Your task to perform on an android device: Search for dell alienware on walmart, select the first entry, add it to the cart, then select checkout. Image 0: 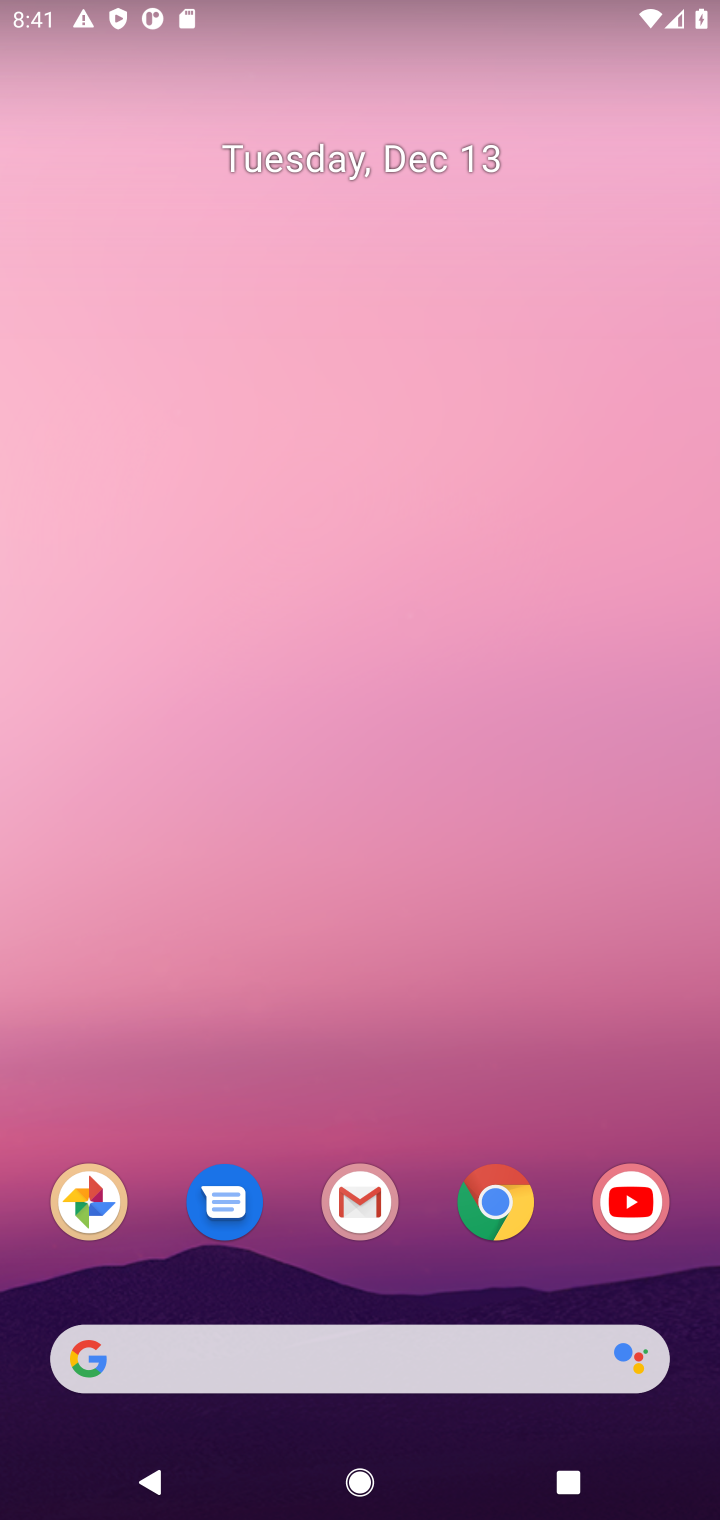
Step 0: click (502, 1203)
Your task to perform on an android device: Search for dell alienware on walmart, select the first entry, add it to the cart, then select checkout. Image 1: 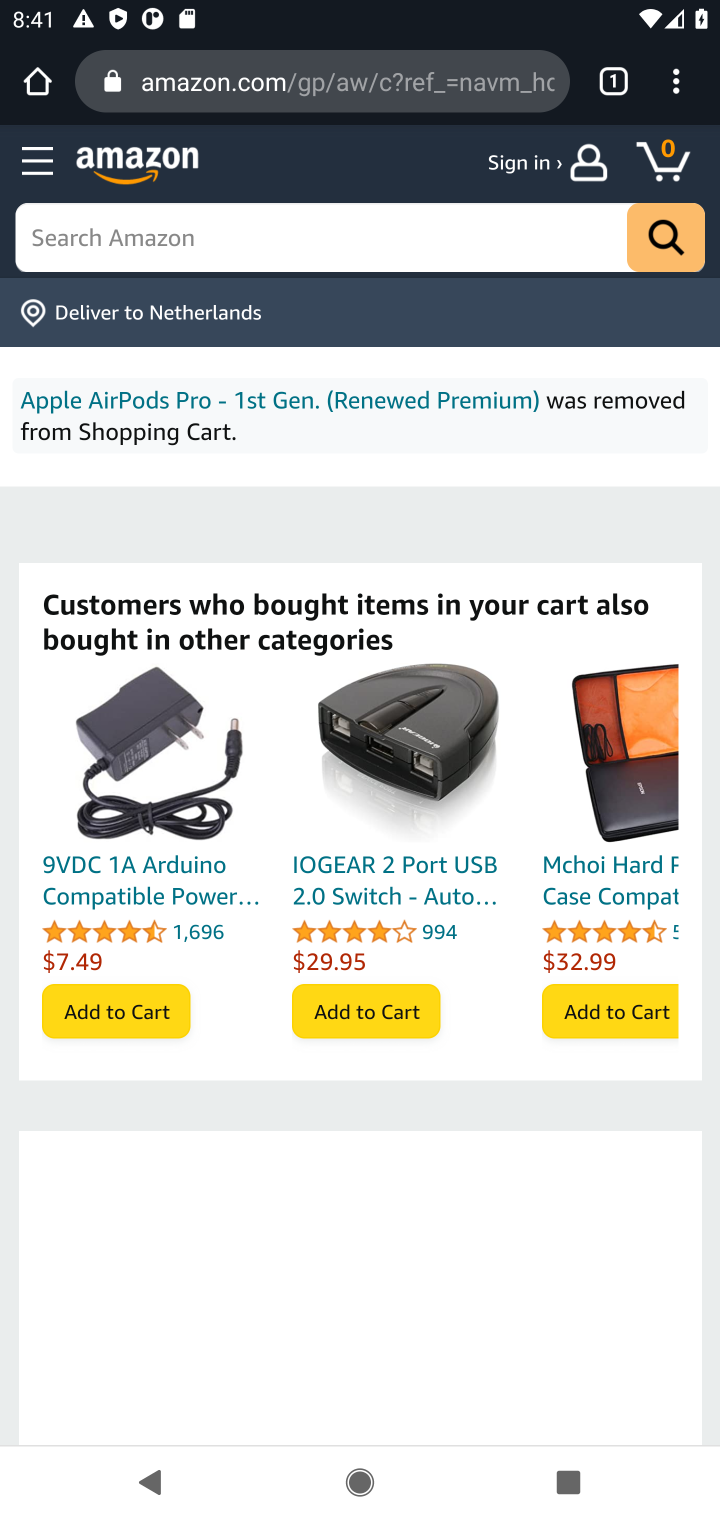
Step 1: click (246, 77)
Your task to perform on an android device: Search for dell alienware on walmart, select the first entry, add it to the cart, then select checkout. Image 2: 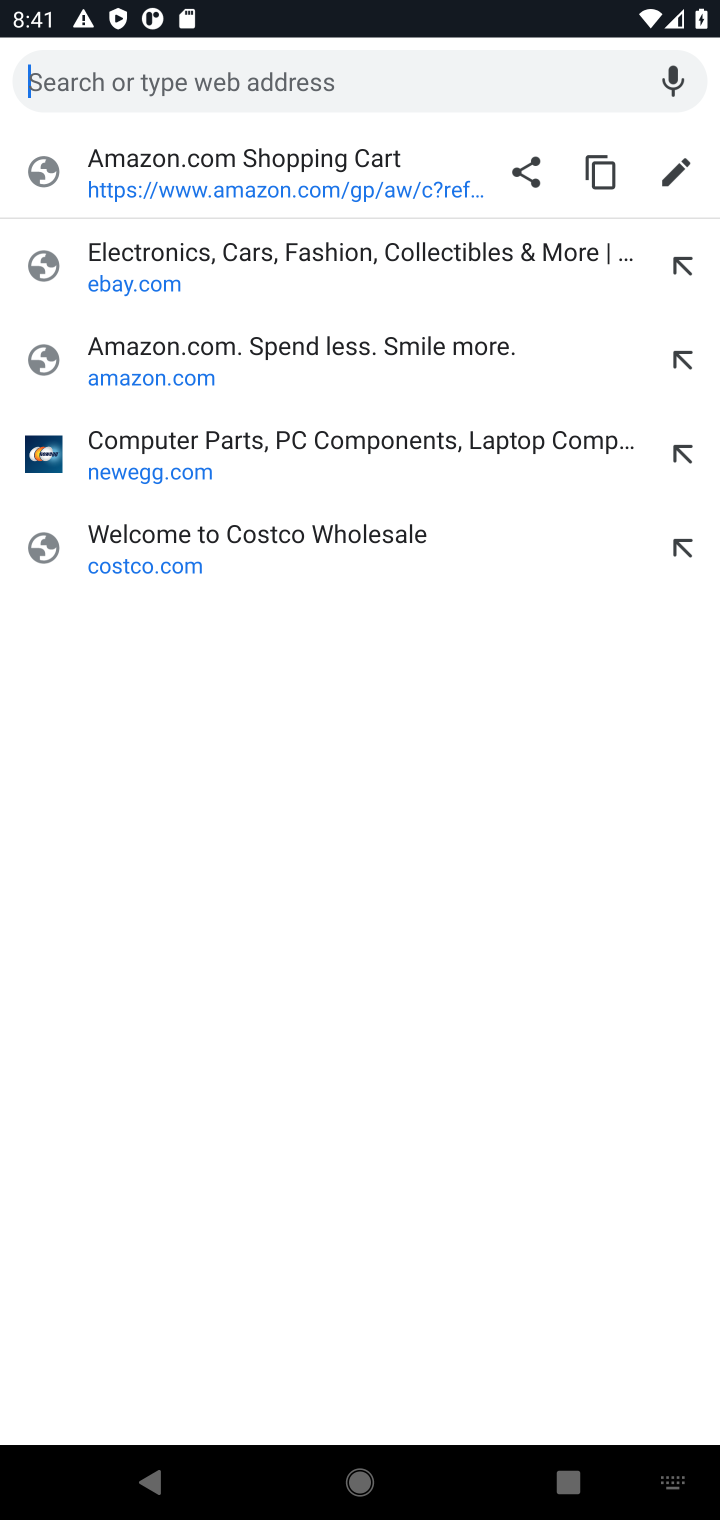
Step 2: type "walmart.com"
Your task to perform on an android device: Search for dell alienware on walmart, select the first entry, add it to the cart, then select checkout. Image 3: 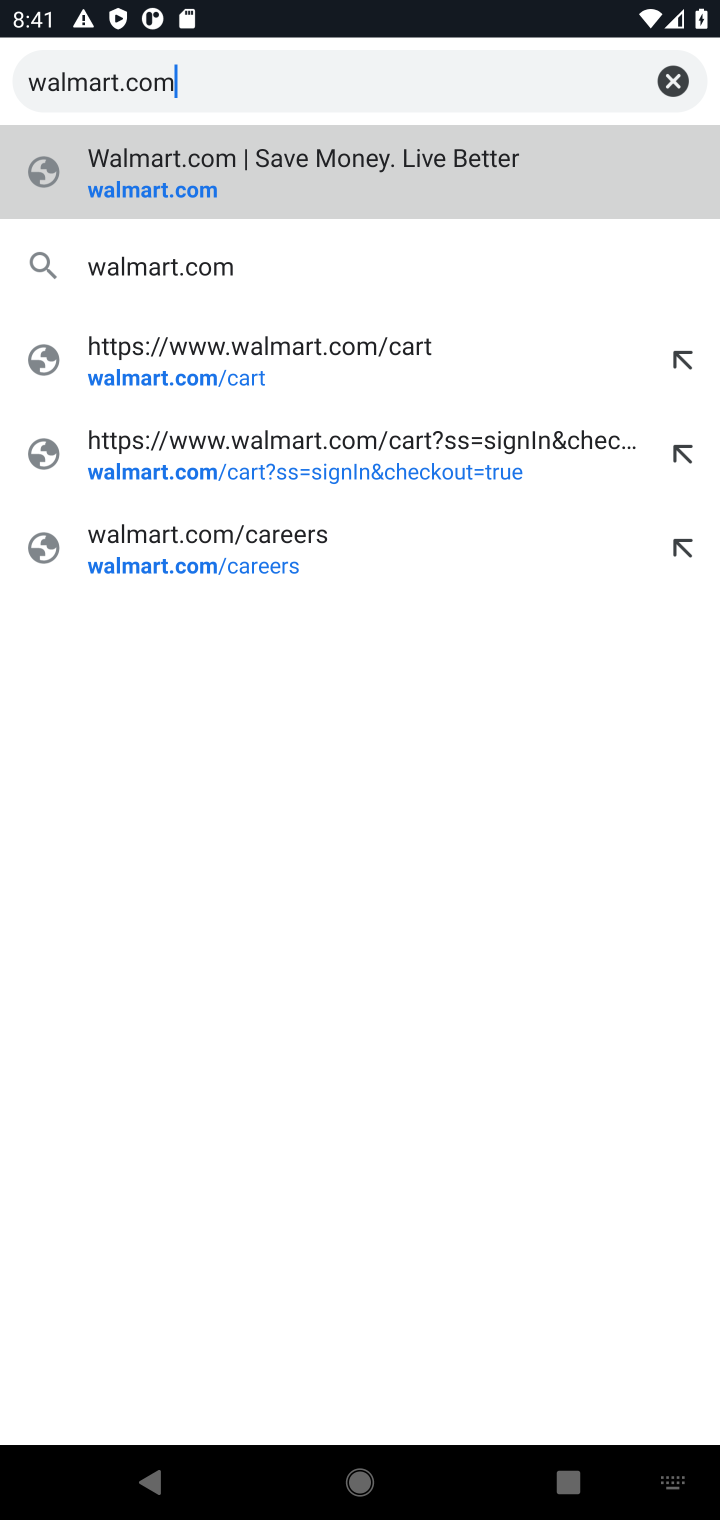
Step 3: click (186, 202)
Your task to perform on an android device: Search for dell alienware on walmart, select the first entry, add it to the cart, then select checkout. Image 4: 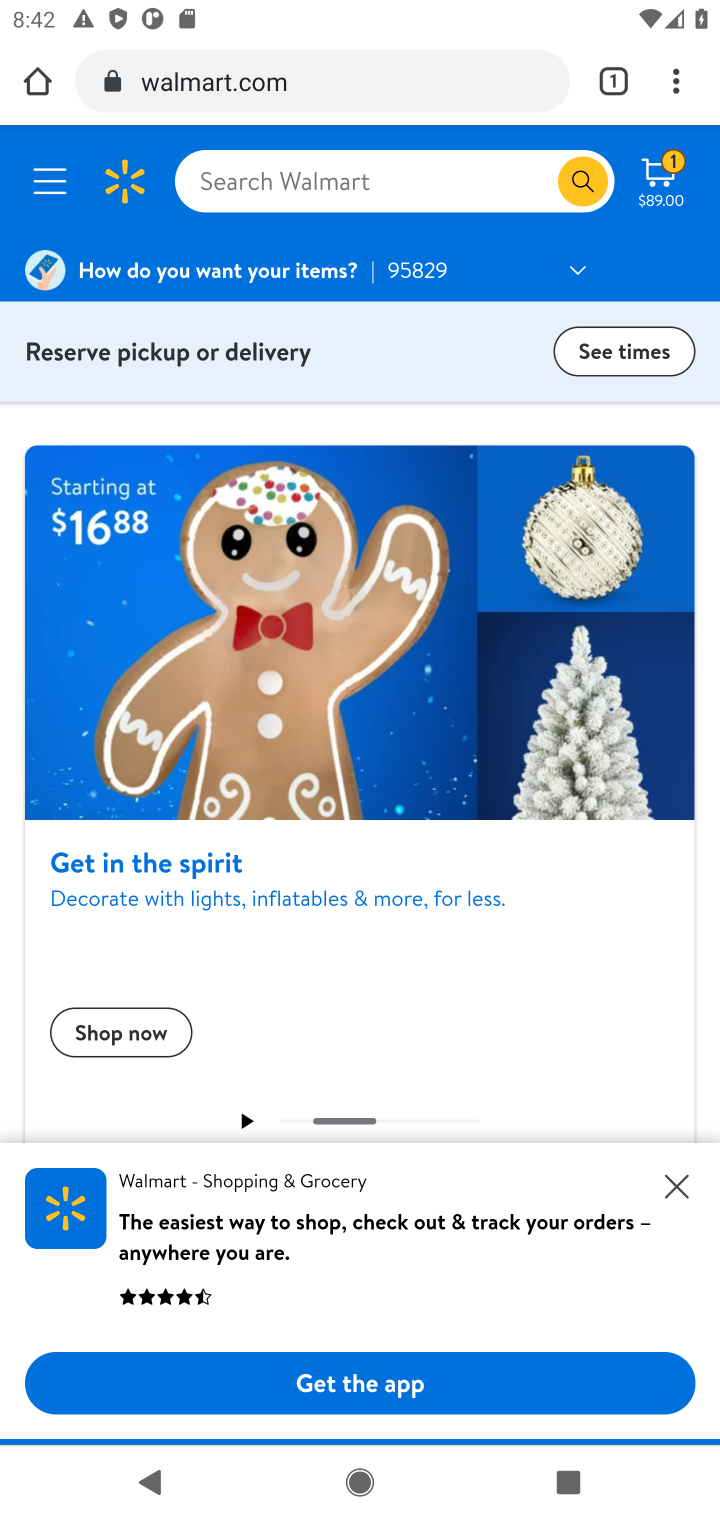
Step 4: click (245, 185)
Your task to perform on an android device: Search for dell alienware on walmart, select the first entry, add it to the cart, then select checkout. Image 5: 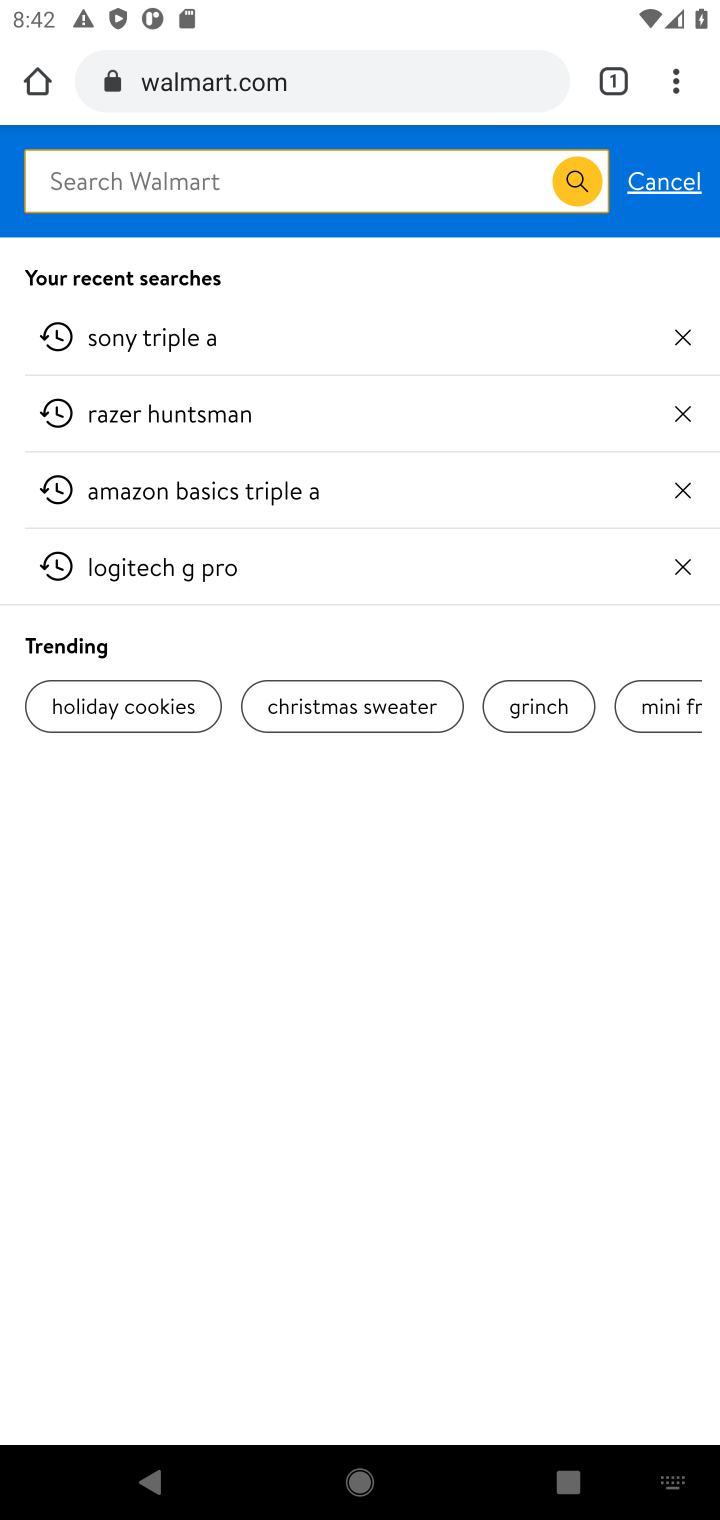
Step 5: type "dell alienware"
Your task to perform on an android device: Search for dell alienware on walmart, select the first entry, add it to the cart, then select checkout. Image 6: 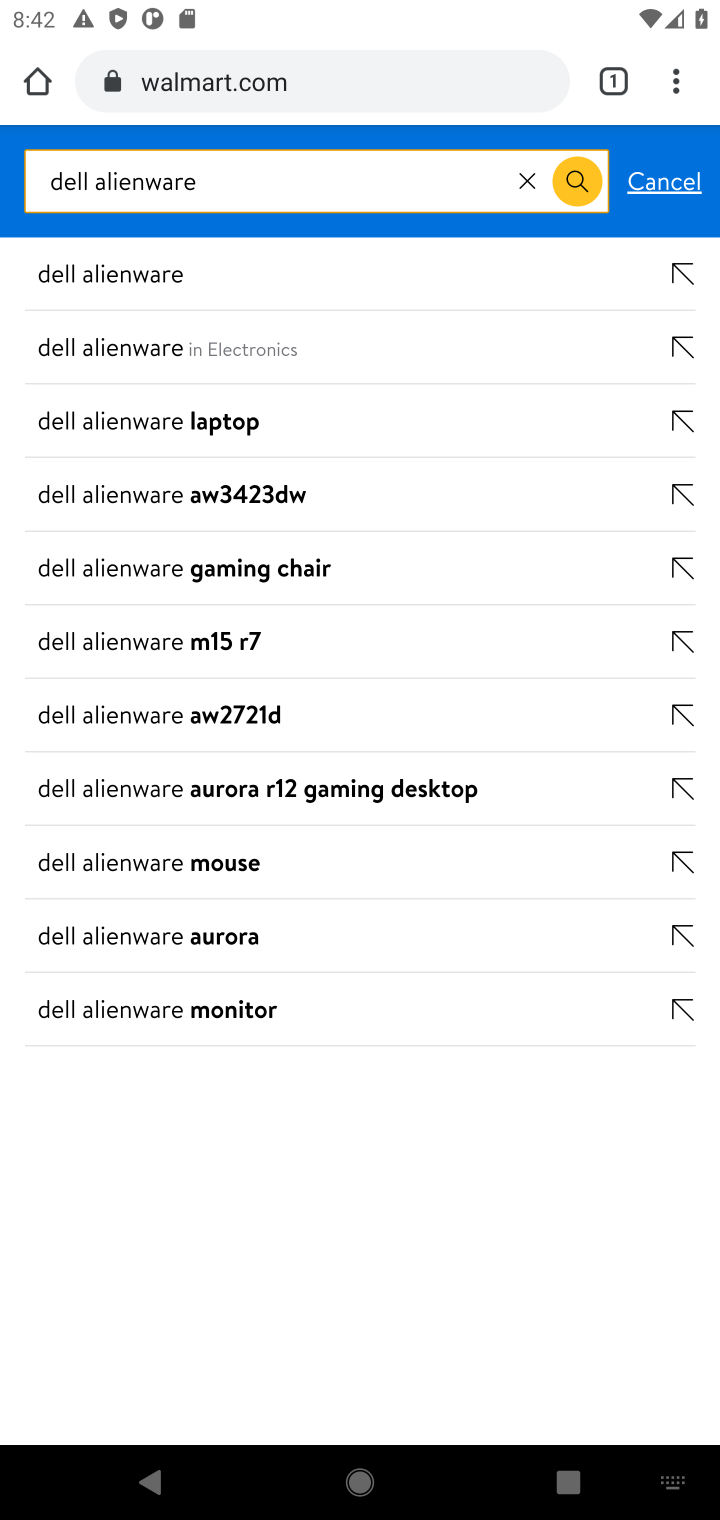
Step 6: click (98, 300)
Your task to perform on an android device: Search for dell alienware on walmart, select the first entry, add it to the cart, then select checkout. Image 7: 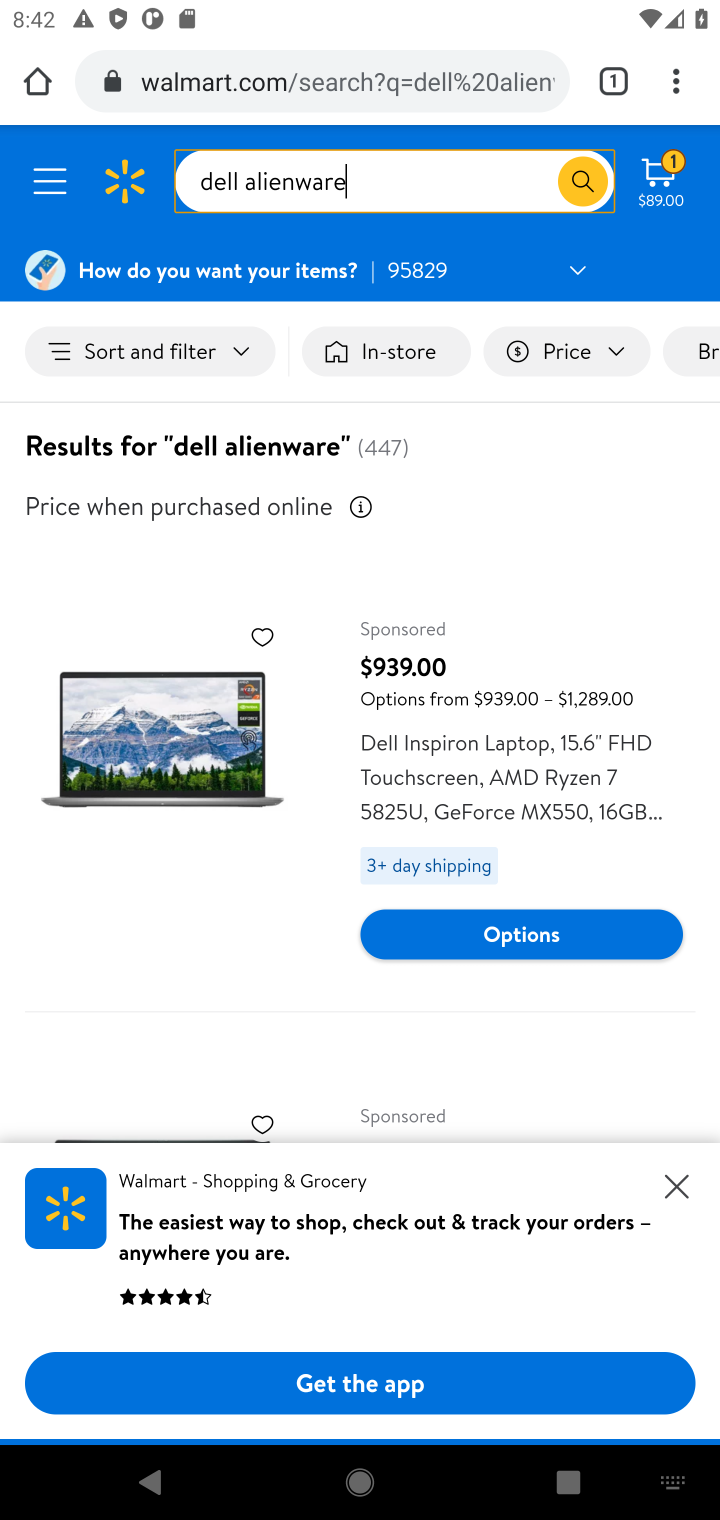
Step 7: task complete